Your task to perform on an android device: see creations saved in the google photos Image 0: 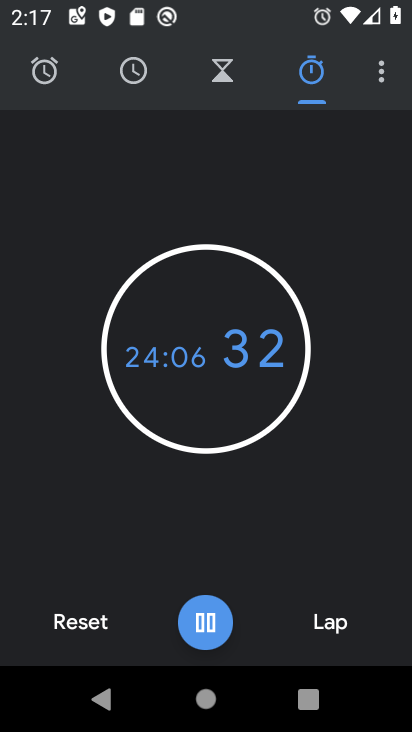
Step 0: press home button
Your task to perform on an android device: see creations saved in the google photos Image 1: 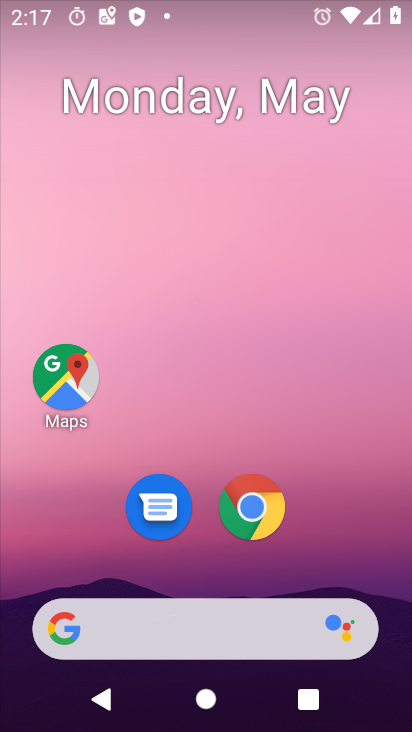
Step 1: drag from (243, 684) to (245, 250)
Your task to perform on an android device: see creations saved in the google photos Image 2: 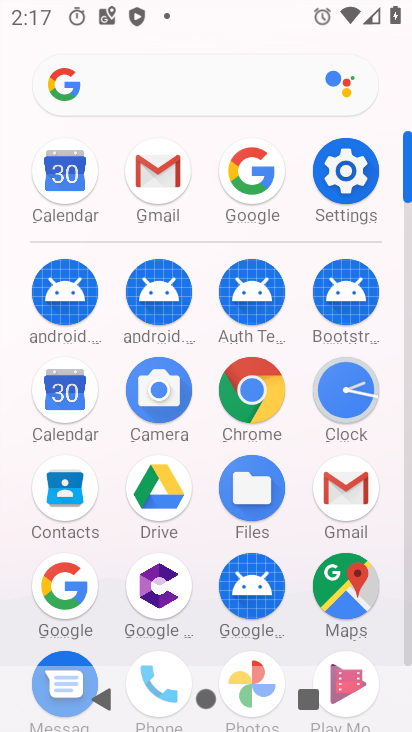
Step 2: drag from (293, 642) to (274, 303)
Your task to perform on an android device: see creations saved in the google photos Image 3: 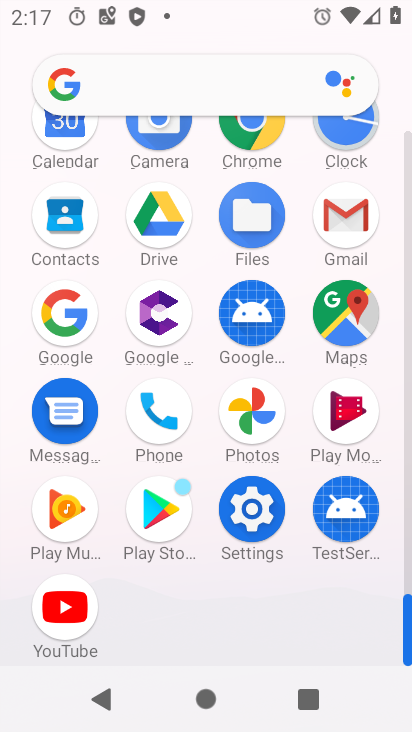
Step 3: click (250, 410)
Your task to perform on an android device: see creations saved in the google photos Image 4: 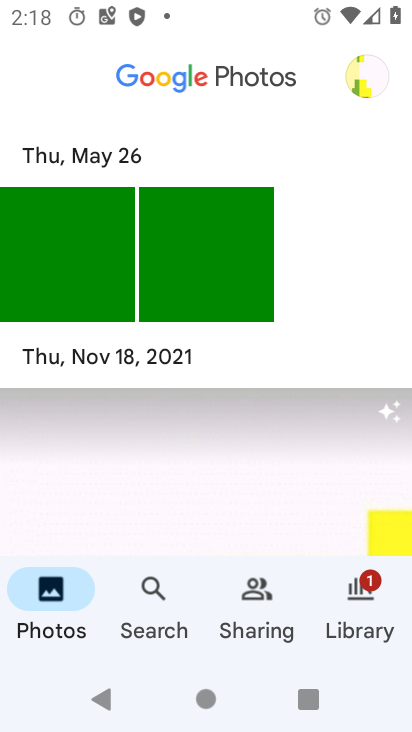
Step 4: click (143, 580)
Your task to perform on an android device: see creations saved in the google photos Image 5: 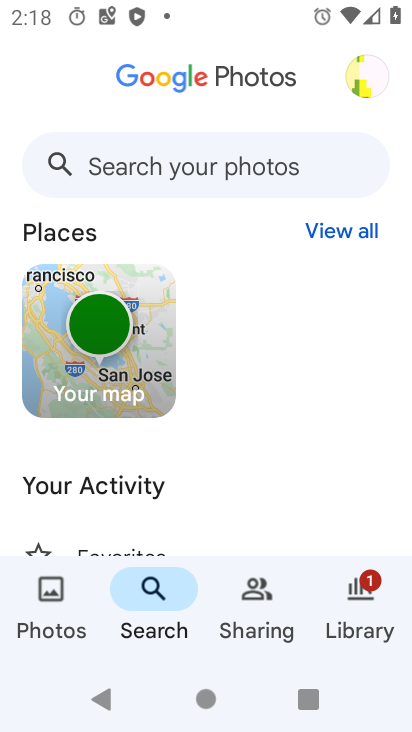
Step 5: click (187, 172)
Your task to perform on an android device: see creations saved in the google photos Image 6: 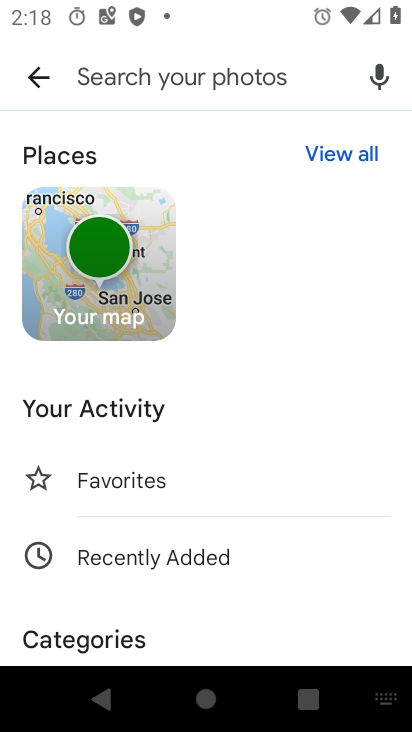
Step 6: drag from (170, 607) to (171, 220)
Your task to perform on an android device: see creations saved in the google photos Image 7: 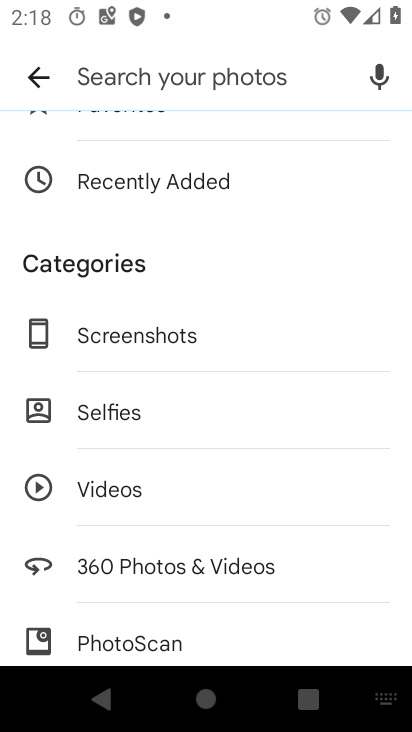
Step 7: drag from (166, 610) to (183, 246)
Your task to perform on an android device: see creations saved in the google photos Image 8: 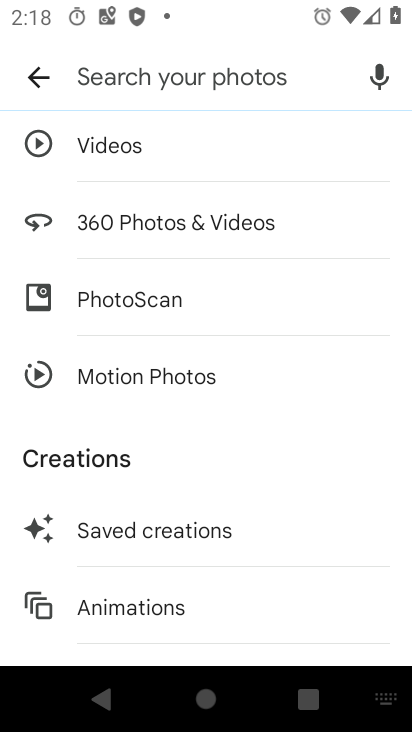
Step 8: click (161, 527)
Your task to perform on an android device: see creations saved in the google photos Image 9: 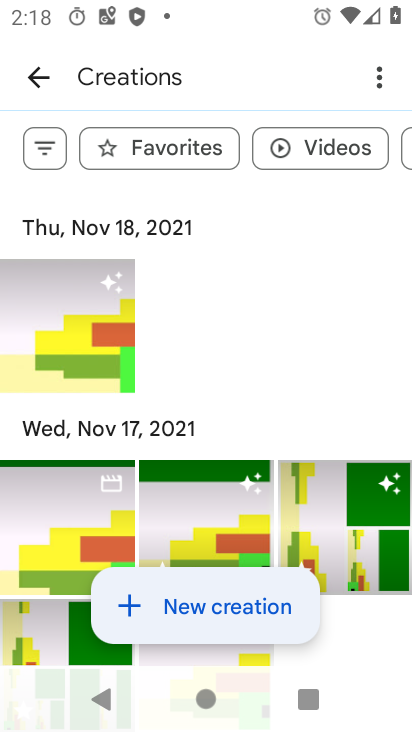
Step 9: task complete